Your task to perform on an android device: allow notifications from all sites in the chrome app Image 0: 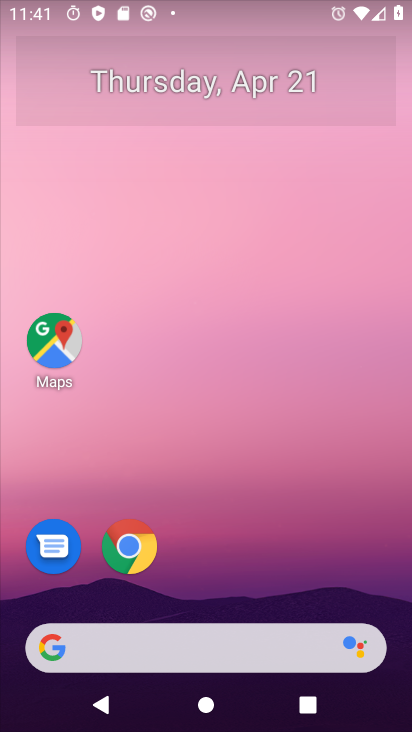
Step 0: drag from (236, 543) to (217, 118)
Your task to perform on an android device: allow notifications from all sites in the chrome app Image 1: 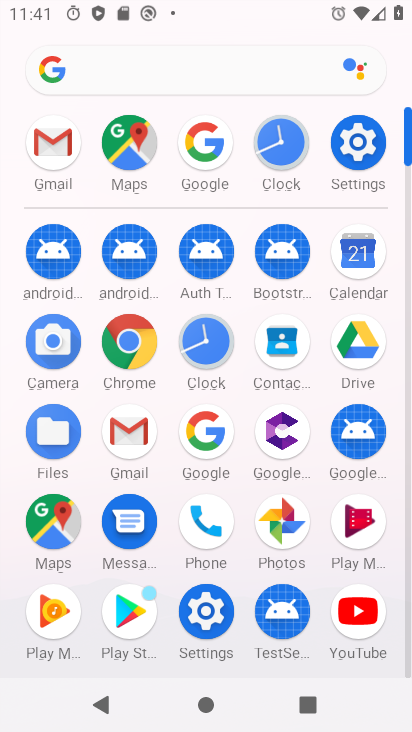
Step 1: click (131, 343)
Your task to perform on an android device: allow notifications from all sites in the chrome app Image 2: 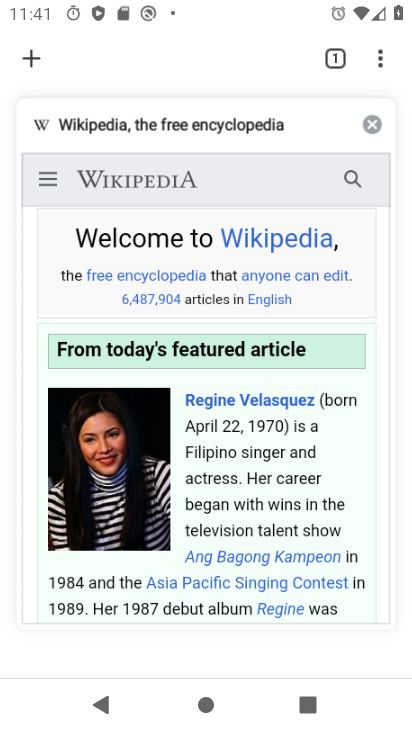
Step 2: press back button
Your task to perform on an android device: allow notifications from all sites in the chrome app Image 3: 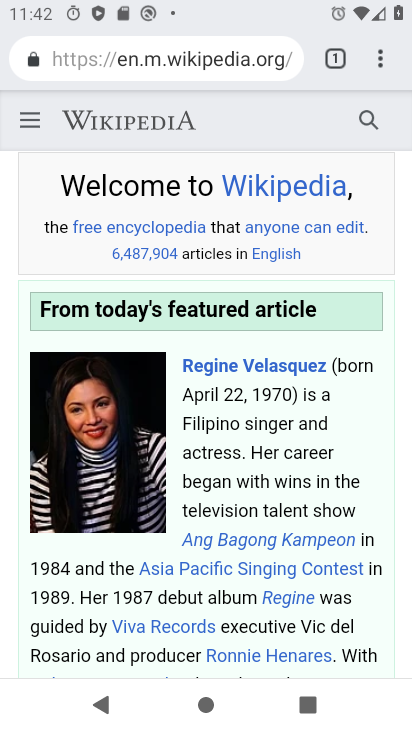
Step 3: click (376, 58)
Your task to perform on an android device: allow notifications from all sites in the chrome app Image 4: 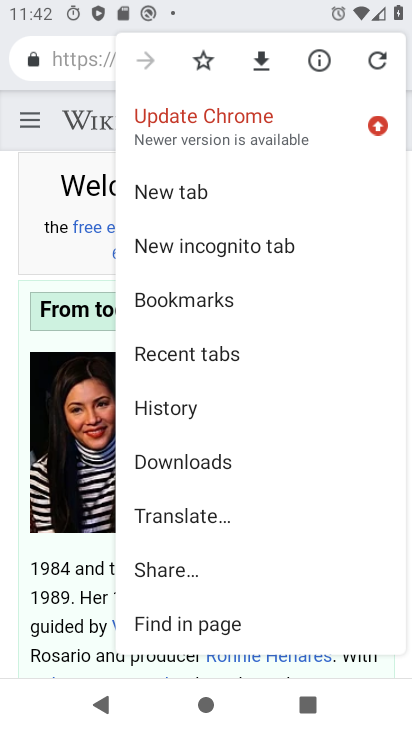
Step 4: drag from (209, 497) to (212, 176)
Your task to perform on an android device: allow notifications from all sites in the chrome app Image 5: 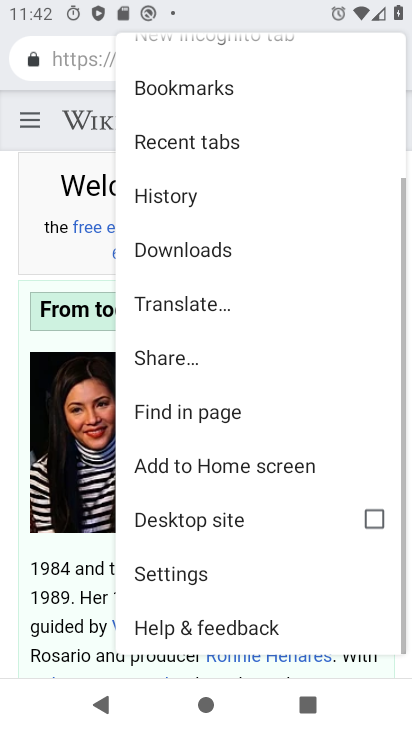
Step 5: click (199, 574)
Your task to perform on an android device: allow notifications from all sites in the chrome app Image 6: 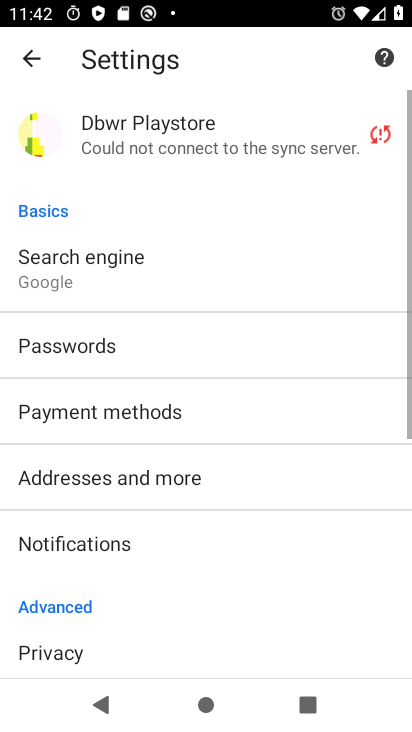
Step 6: drag from (133, 682) to (149, 363)
Your task to perform on an android device: allow notifications from all sites in the chrome app Image 7: 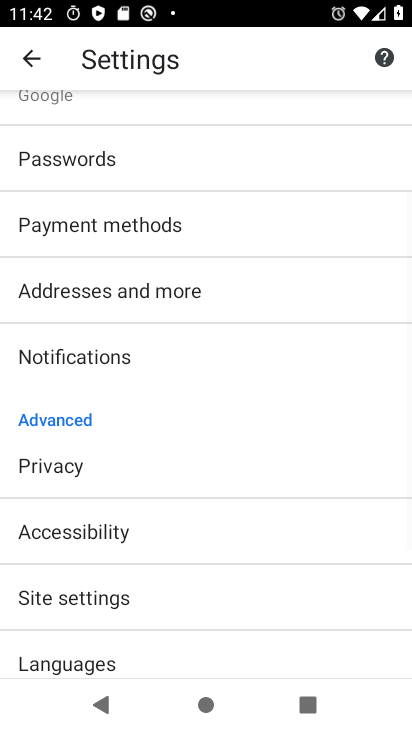
Step 7: click (56, 596)
Your task to perform on an android device: allow notifications from all sites in the chrome app Image 8: 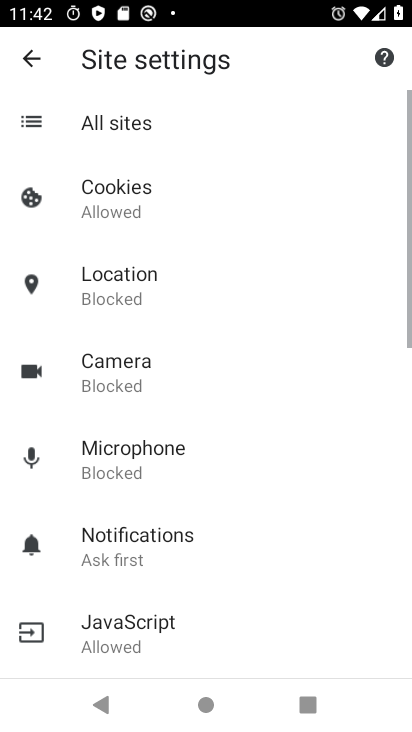
Step 8: click (161, 542)
Your task to perform on an android device: allow notifications from all sites in the chrome app Image 9: 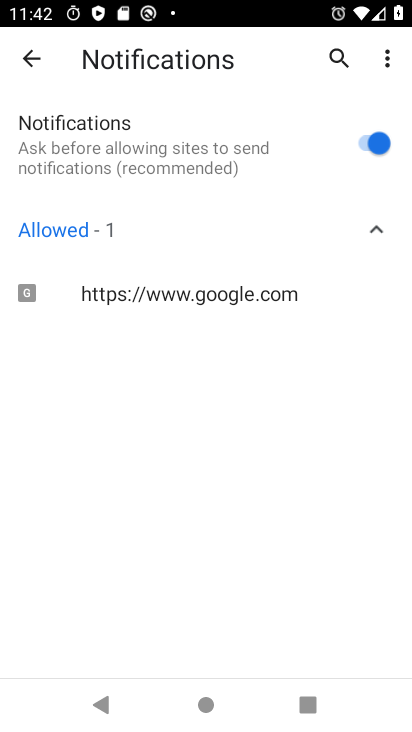
Step 9: task complete